Your task to perform on an android device: toggle location history Image 0: 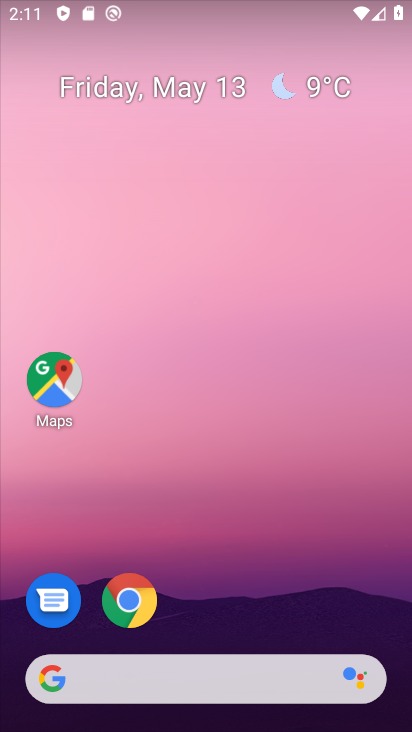
Step 0: drag from (222, 612) to (225, 12)
Your task to perform on an android device: toggle location history Image 1: 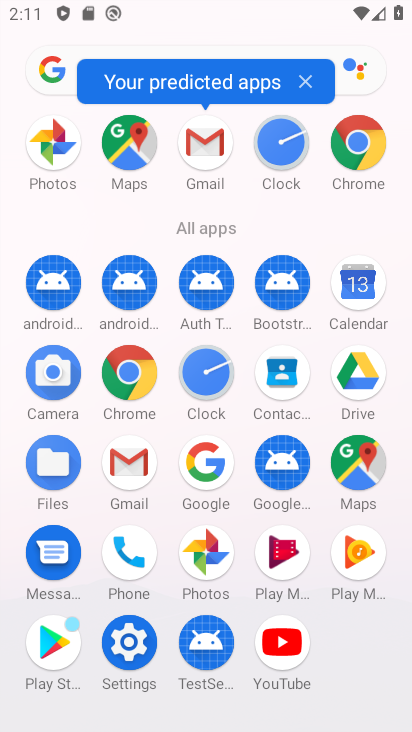
Step 1: click (124, 661)
Your task to perform on an android device: toggle location history Image 2: 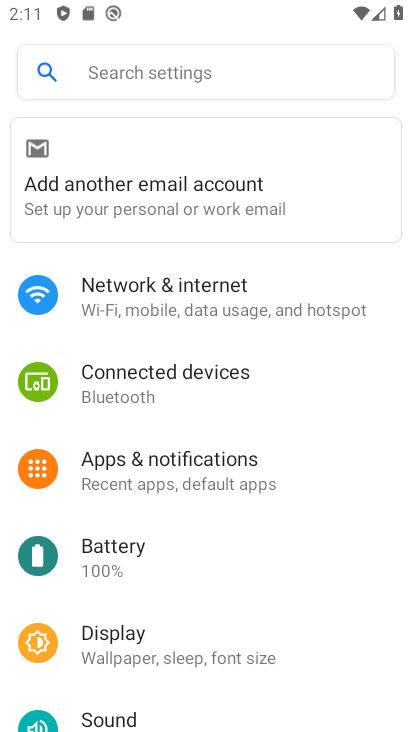
Step 2: drag from (200, 632) to (191, 271)
Your task to perform on an android device: toggle location history Image 3: 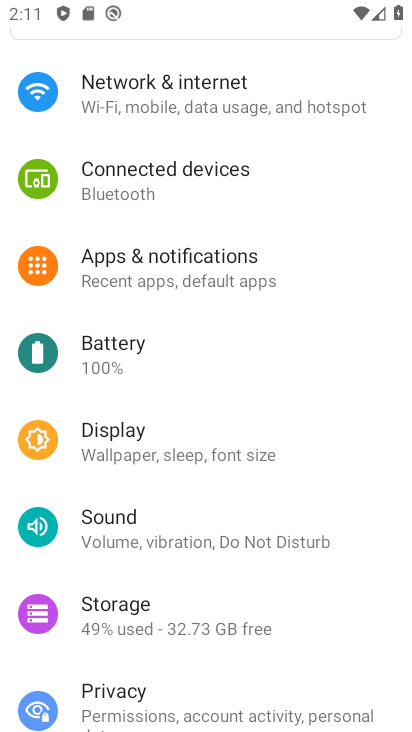
Step 3: drag from (192, 678) to (250, 282)
Your task to perform on an android device: toggle location history Image 4: 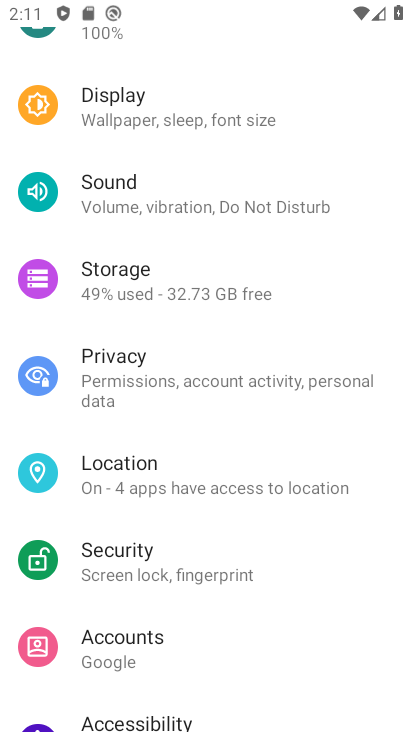
Step 4: click (160, 489)
Your task to perform on an android device: toggle location history Image 5: 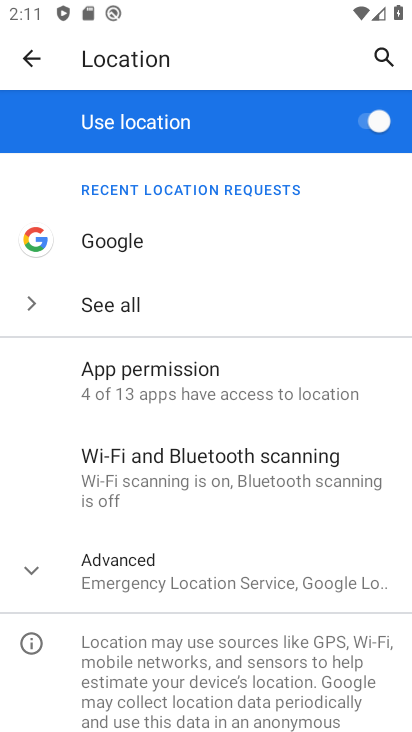
Step 5: click (158, 575)
Your task to perform on an android device: toggle location history Image 6: 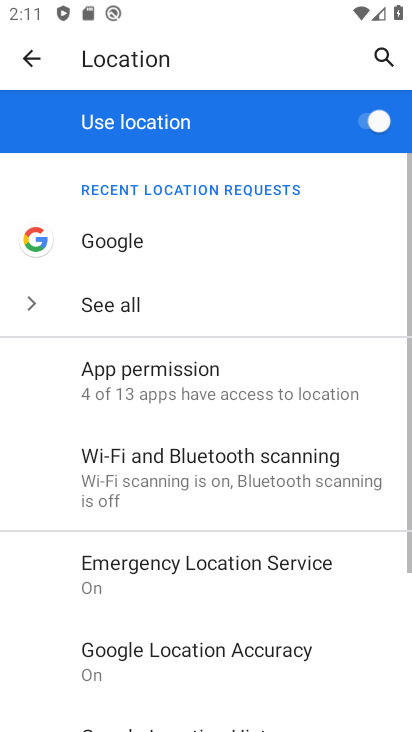
Step 6: drag from (179, 664) to (204, 321)
Your task to perform on an android device: toggle location history Image 7: 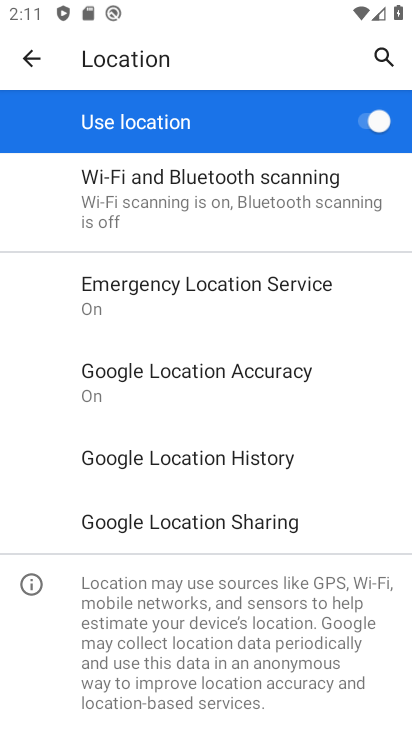
Step 7: click (196, 460)
Your task to perform on an android device: toggle location history Image 8: 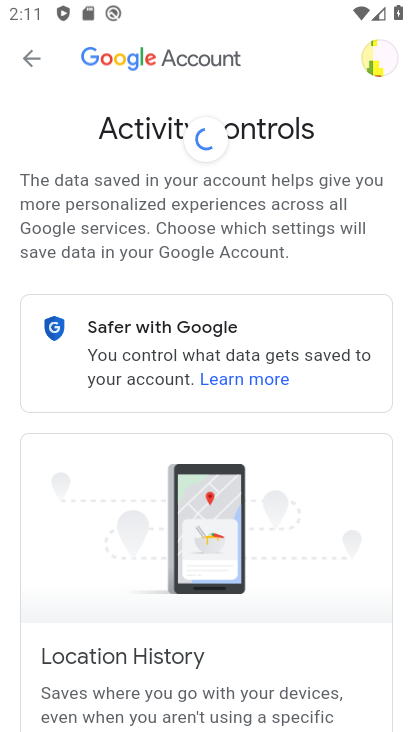
Step 8: drag from (300, 613) to (298, 222)
Your task to perform on an android device: toggle location history Image 9: 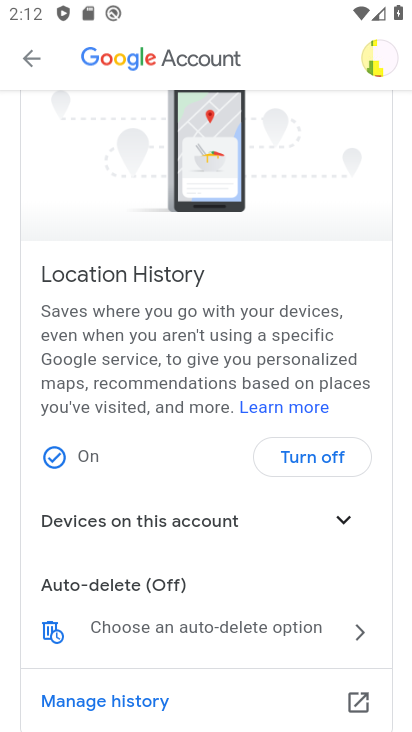
Step 9: click (288, 461)
Your task to perform on an android device: toggle location history Image 10: 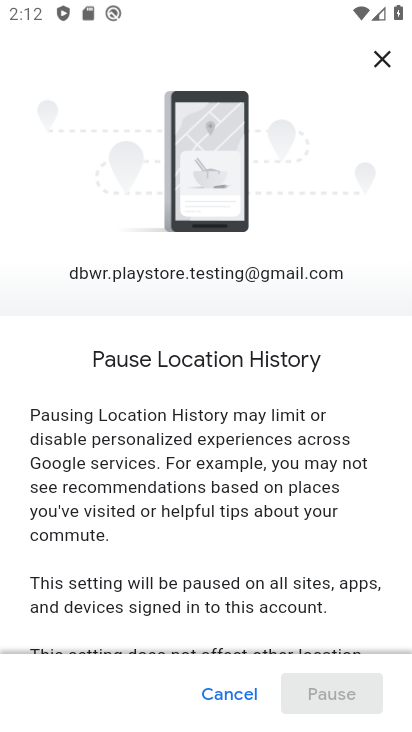
Step 10: drag from (266, 618) to (266, 176)
Your task to perform on an android device: toggle location history Image 11: 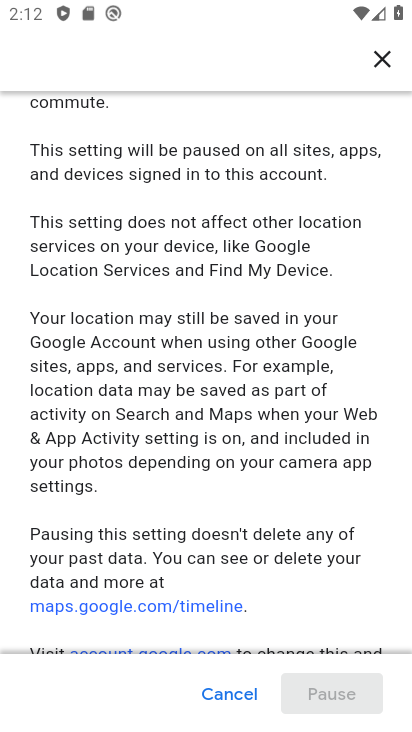
Step 11: drag from (311, 585) to (342, 162)
Your task to perform on an android device: toggle location history Image 12: 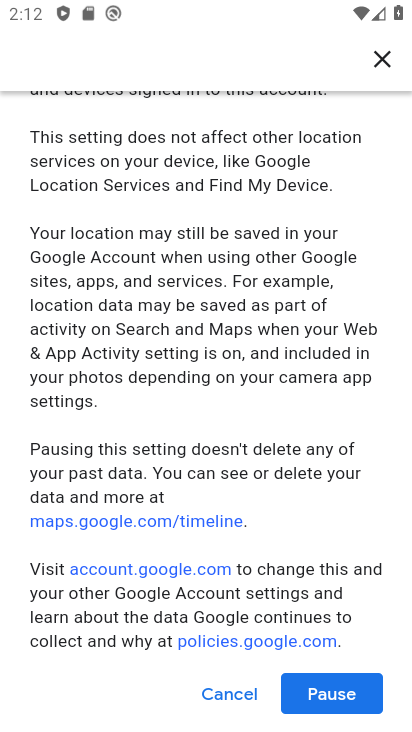
Step 12: click (329, 698)
Your task to perform on an android device: toggle location history Image 13: 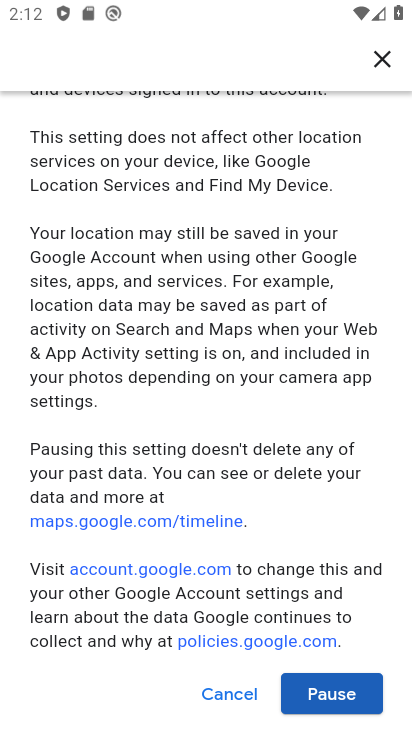
Step 13: click (330, 692)
Your task to perform on an android device: toggle location history Image 14: 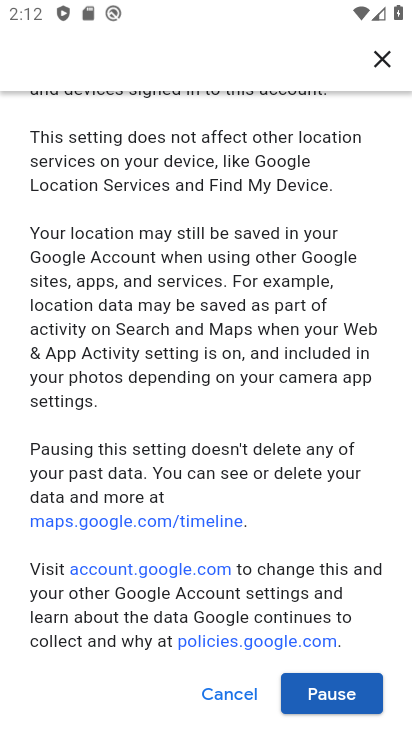
Step 14: click (331, 688)
Your task to perform on an android device: toggle location history Image 15: 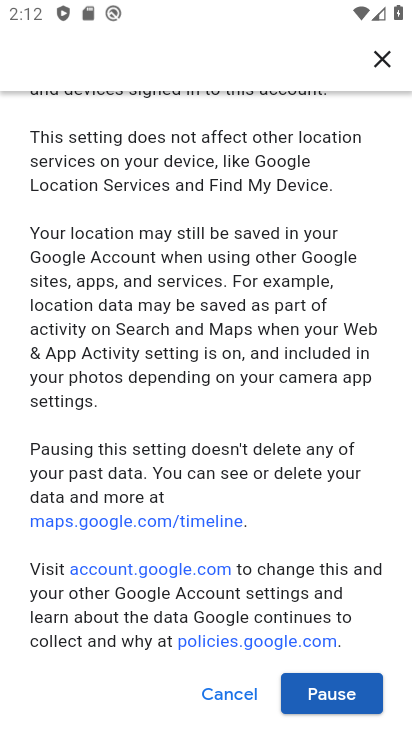
Step 15: click (329, 696)
Your task to perform on an android device: toggle location history Image 16: 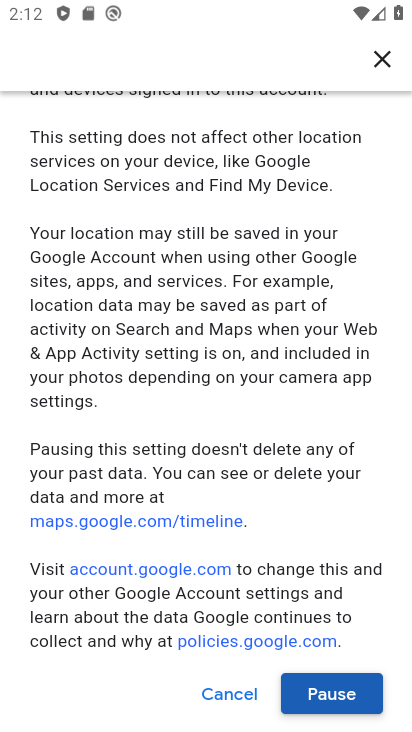
Step 16: drag from (305, 624) to (299, 245)
Your task to perform on an android device: toggle location history Image 17: 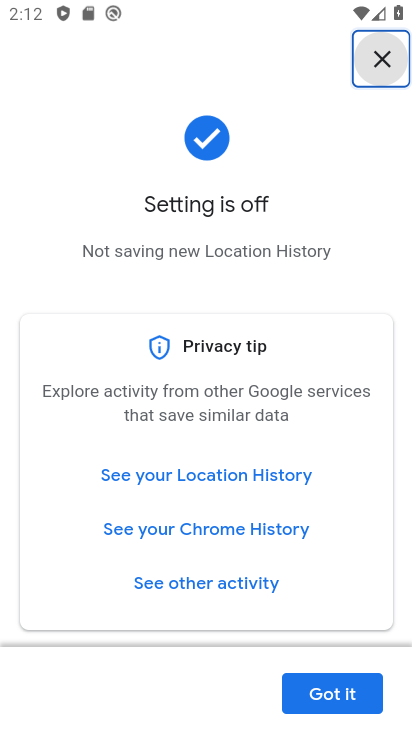
Step 17: click (316, 681)
Your task to perform on an android device: toggle location history Image 18: 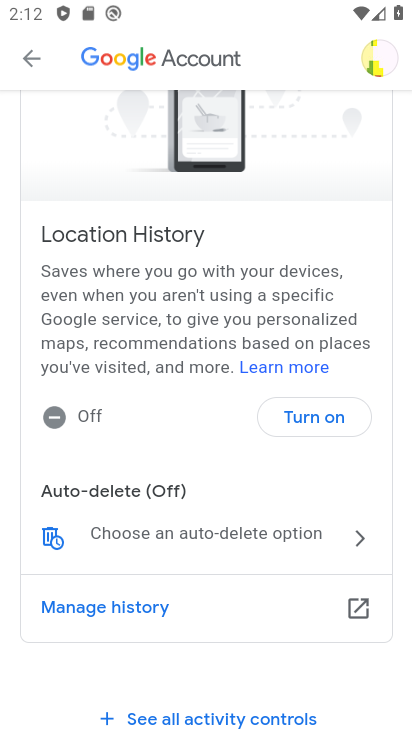
Step 18: task complete